Your task to perform on an android device: Open display settings Image 0: 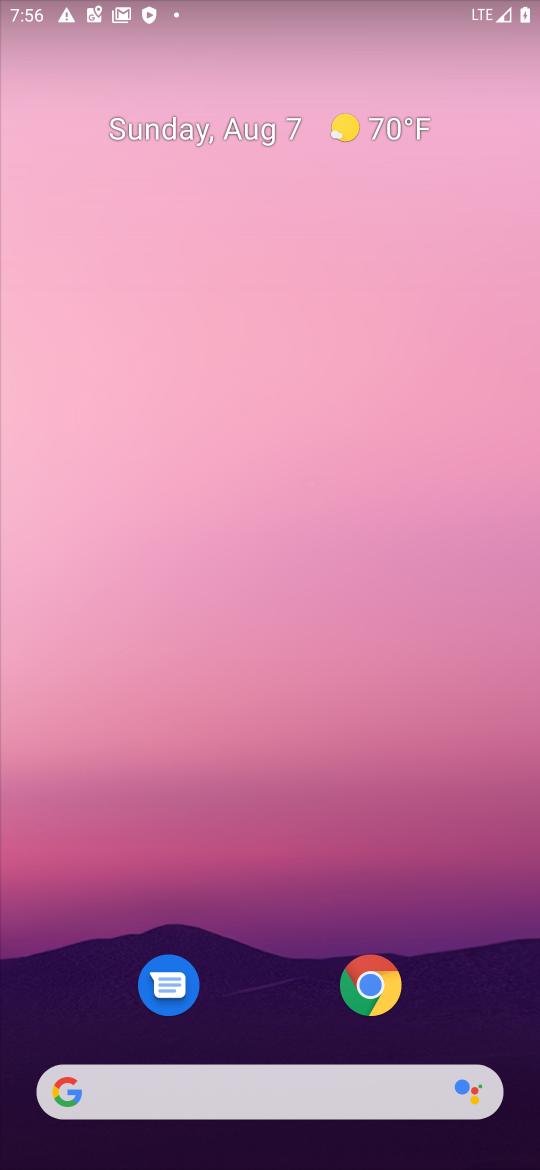
Step 0: drag from (388, 1011) to (417, 198)
Your task to perform on an android device: Open display settings Image 1: 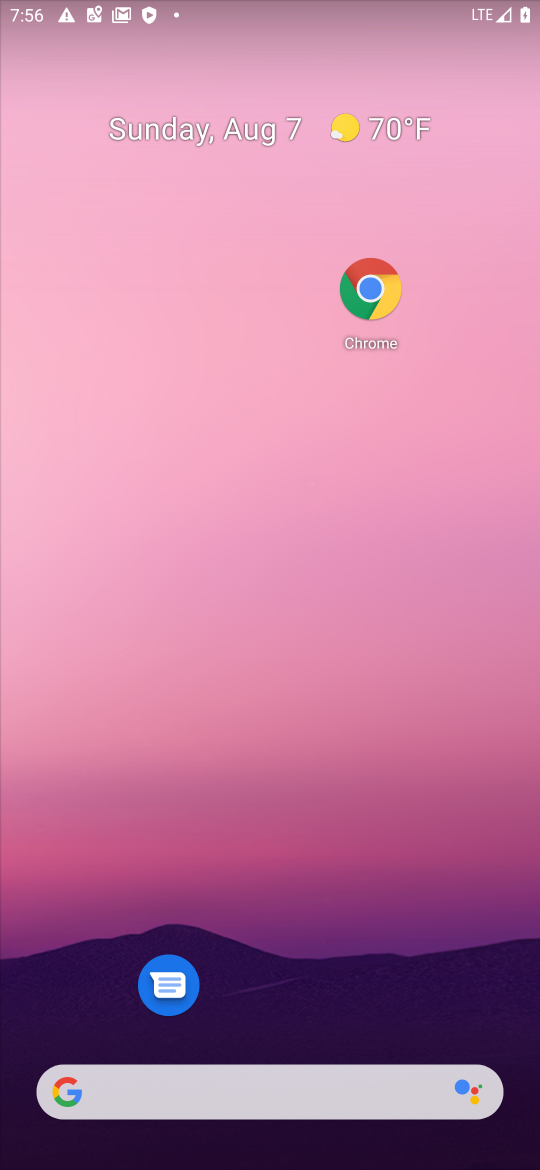
Step 1: drag from (283, 1053) to (308, 139)
Your task to perform on an android device: Open display settings Image 2: 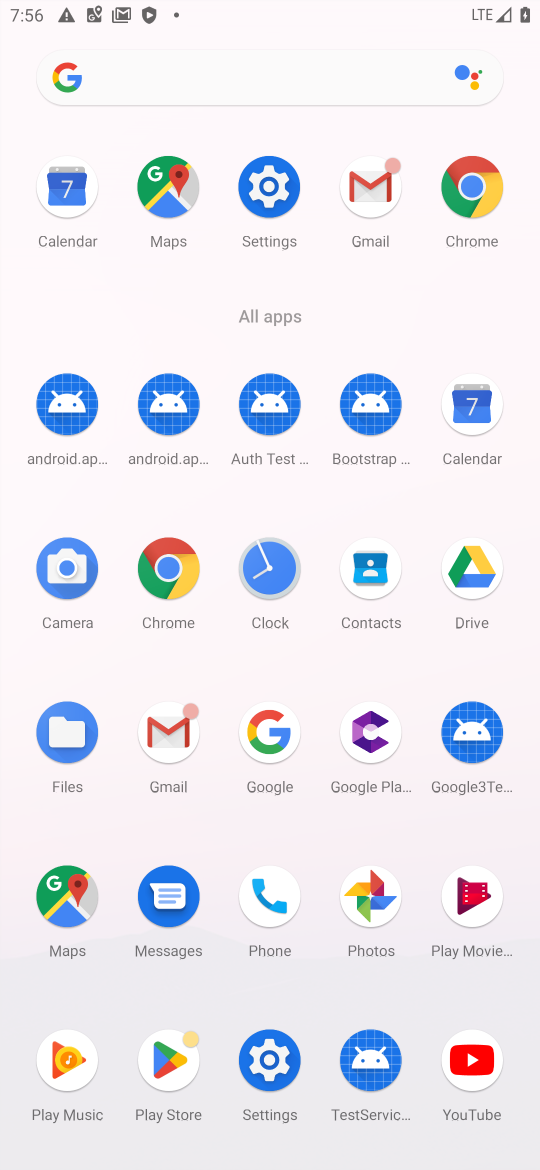
Step 2: click (279, 184)
Your task to perform on an android device: Open display settings Image 3: 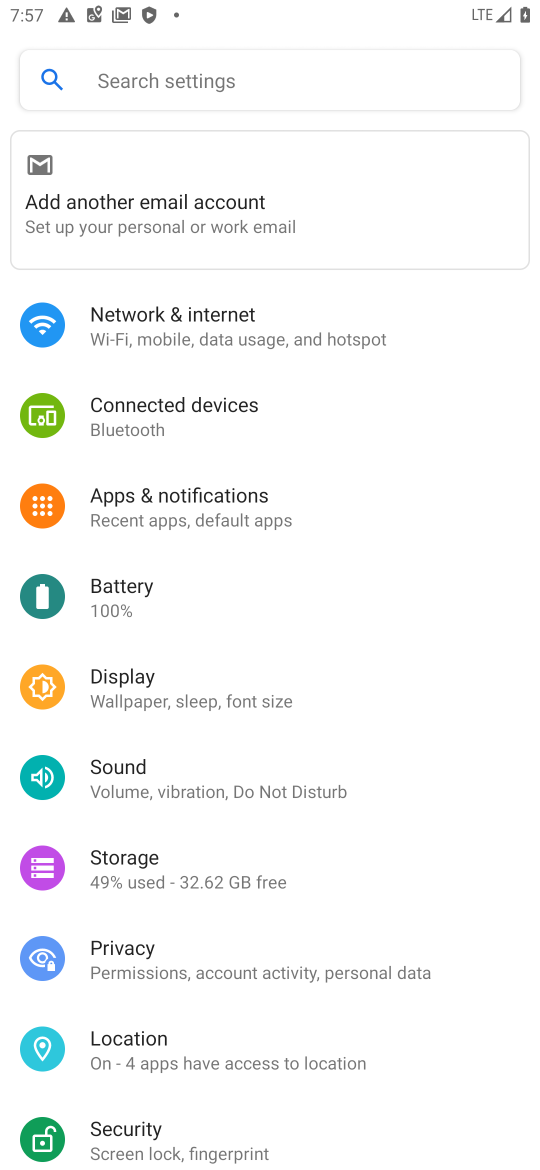
Step 3: click (159, 677)
Your task to perform on an android device: Open display settings Image 4: 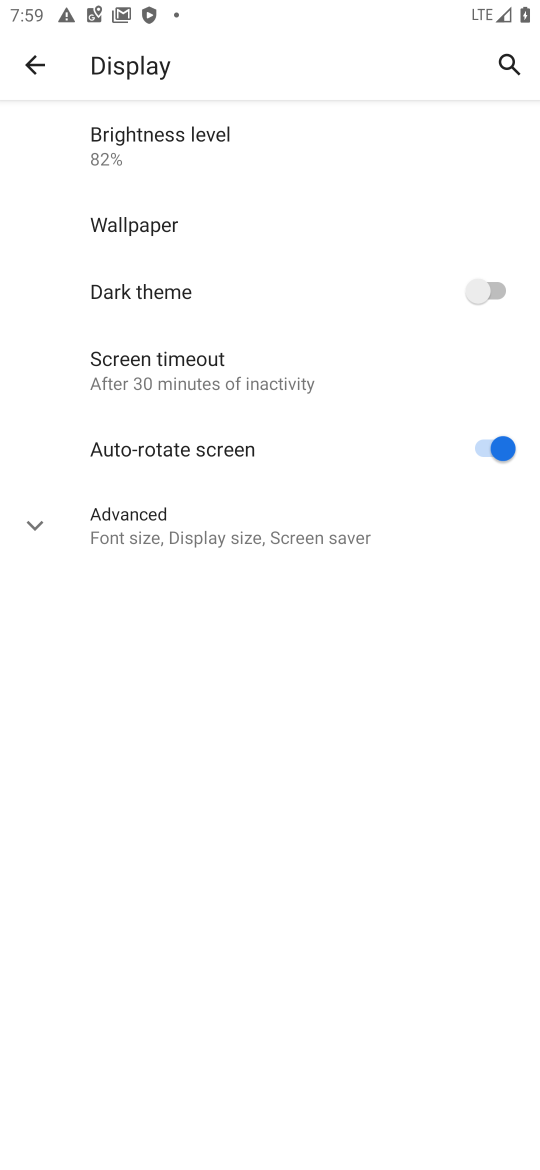
Step 4: task complete